Your task to perform on an android device: Set the phone to "Do not disturb". Image 0: 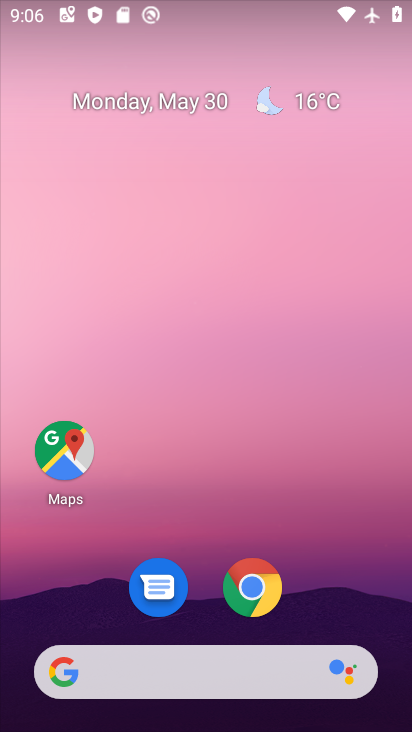
Step 0: drag from (184, 682) to (291, 91)
Your task to perform on an android device: Set the phone to "Do not disturb". Image 1: 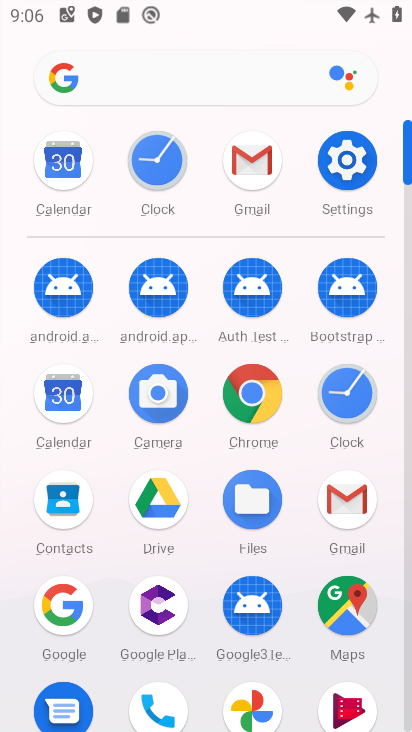
Step 1: click (344, 173)
Your task to perform on an android device: Set the phone to "Do not disturb". Image 2: 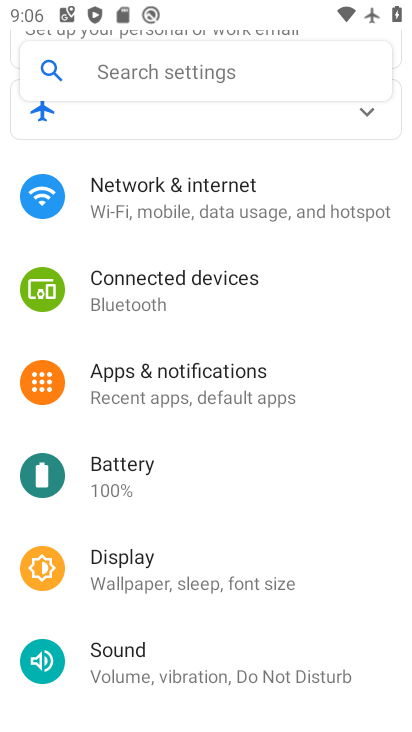
Step 2: drag from (248, 498) to (323, 193)
Your task to perform on an android device: Set the phone to "Do not disturb". Image 3: 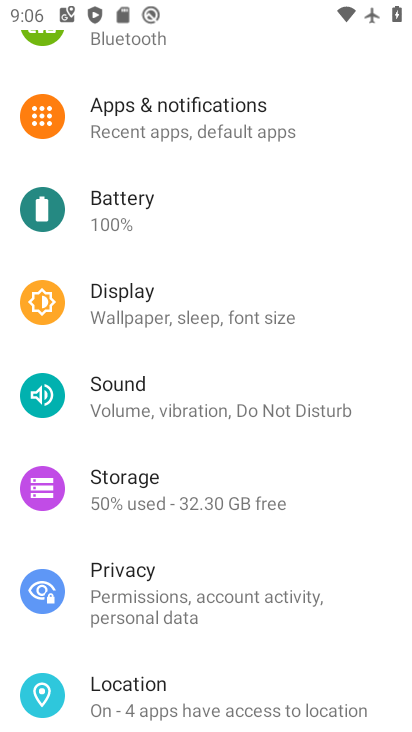
Step 3: click (236, 404)
Your task to perform on an android device: Set the phone to "Do not disturb". Image 4: 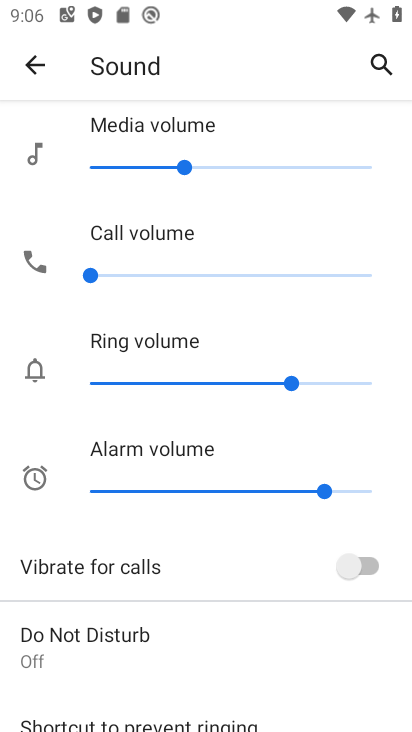
Step 4: click (65, 637)
Your task to perform on an android device: Set the phone to "Do not disturb". Image 5: 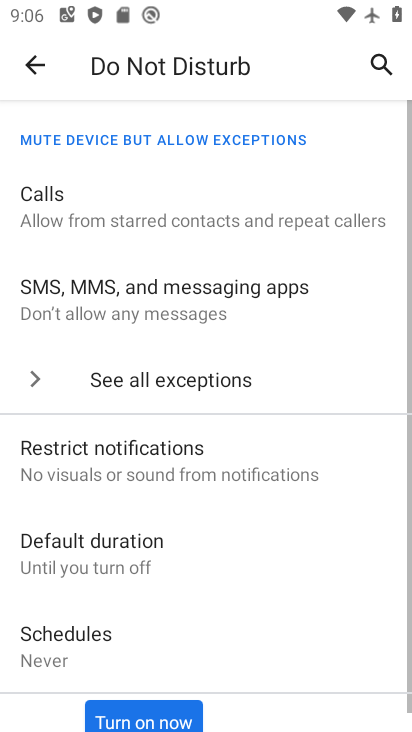
Step 5: drag from (194, 645) to (313, 211)
Your task to perform on an android device: Set the phone to "Do not disturb". Image 6: 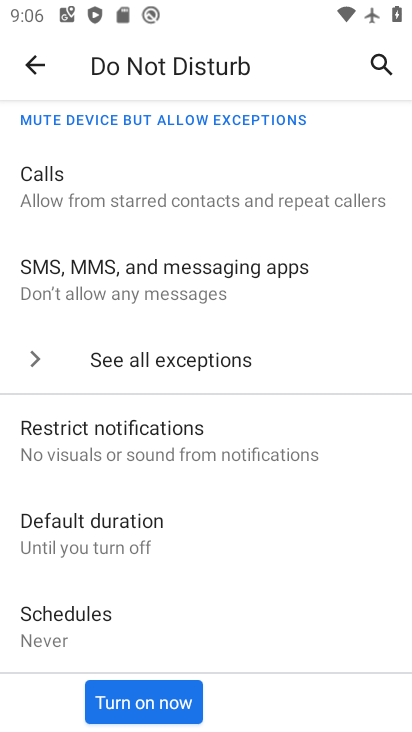
Step 6: click (150, 708)
Your task to perform on an android device: Set the phone to "Do not disturb". Image 7: 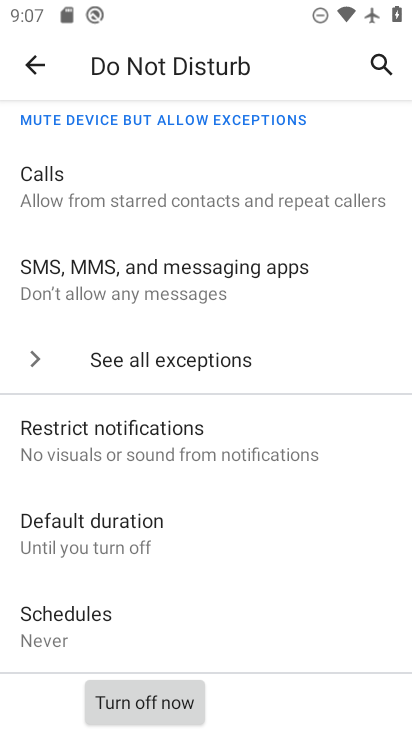
Step 7: task complete